Your task to perform on an android device: Search for "macbook pro 13 inch" on walmart.com, select the first entry, add it to the cart, then select checkout. Image 0: 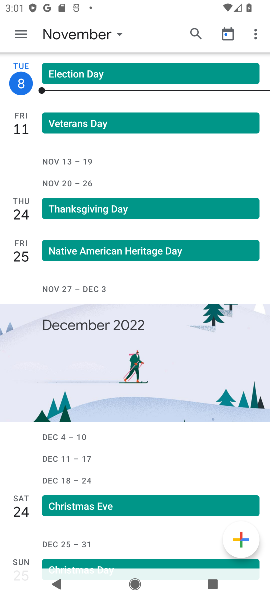
Step 0: press home button
Your task to perform on an android device: Search for "macbook pro 13 inch" on walmart.com, select the first entry, add it to the cart, then select checkout. Image 1: 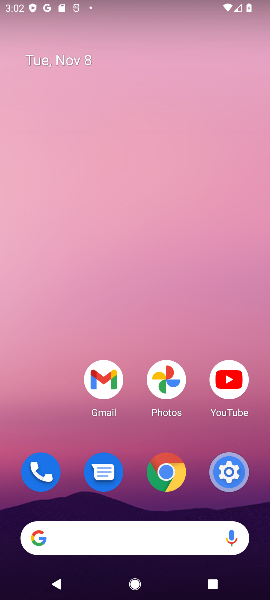
Step 1: click (153, 545)
Your task to perform on an android device: Search for "macbook pro 13 inch" on walmart.com, select the first entry, add it to the cart, then select checkout. Image 2: 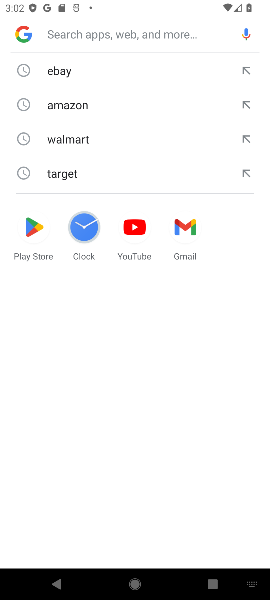
Step 2: click (126, 142)
Your task to perform on an android device: Search for "macbook pro 13 inch" on walmart.com, select the first entry, add it to the cart, then select checkout. Image 3: 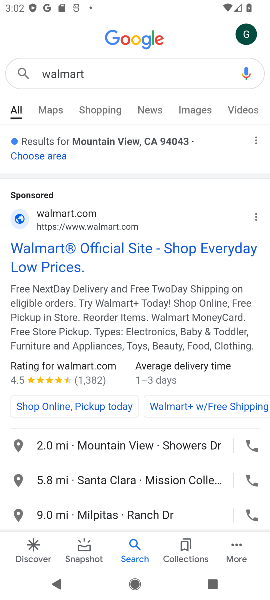
Step 3: click (46, 250)
Your task to perform on an android device: Search for "macbook pro 13 inch" on walmart.com, select the first entry, add it to the cart, then select checkout. Image 4: 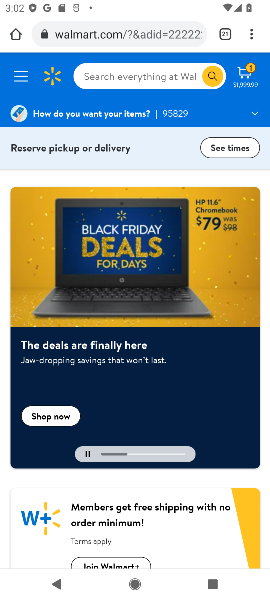
Step 4: click (99, 71)
Your task to perform on an android device: Search for "macbook pro 13 inch" on walmart.com, select the first entry, add it to the cart, then select checkout. Image 5: 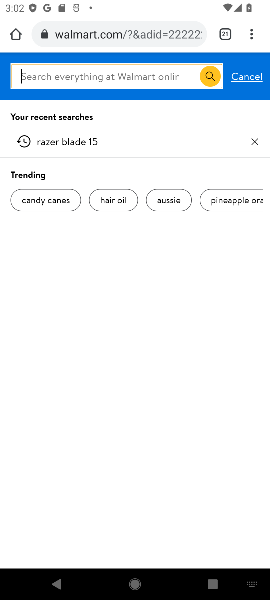
Step 5: type "macbook pro 13 inch"
Your task to perform on an android device: Search for "macbook pro 13 inch" on walmart.com, select the first entry, add it to the cart, then select checkout. Image 6: 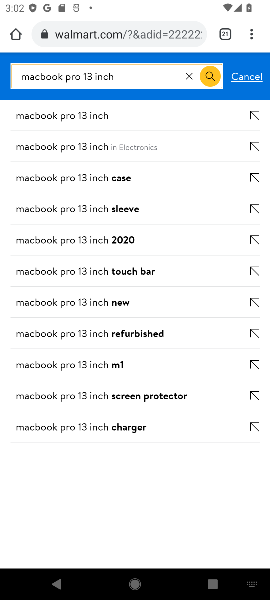
Step 6: click (107, 115)
Your task to perform on an android device: Search for "macbook pro 13 inch" on walmart.com, select the first entry, add it to the cart, then select checkout. Image 7: 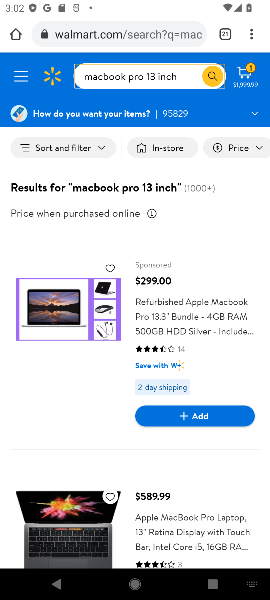
Step 7: click (151, 424)
Your task to perform on an android device: Search for "macbook pro 13 inch" on walmart.com, select the first entry, add it to the cart, then select checkout. Image 8: 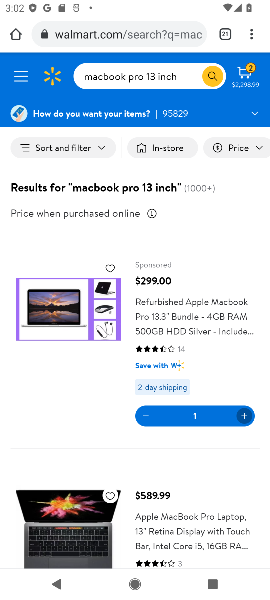
Step 8: task complete